Your task to perform on an android device: Open Chrome and go to the settings page Image 0: 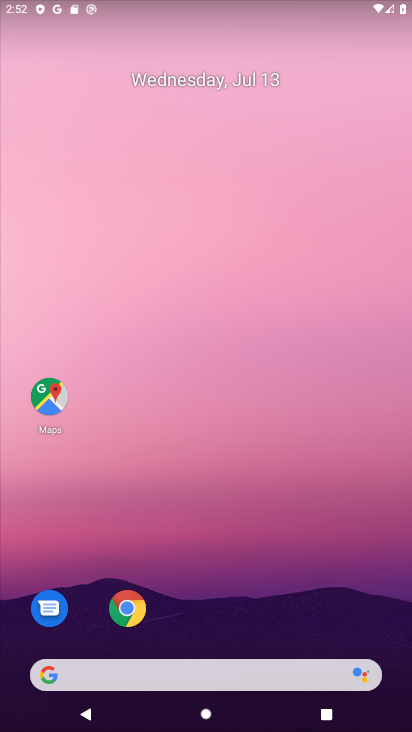
Step 0: click (125, 598)
Your task to perform on an android device: Open Chrome and go to the settings page Image 1: 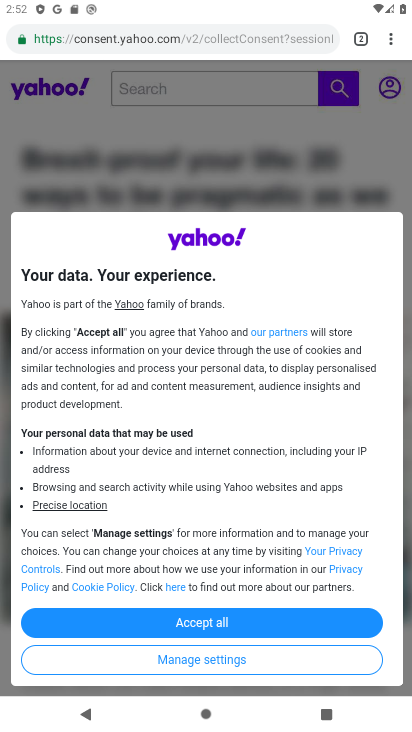
Step 1: click (385, 44)
Your task to perform on an android device: Open Chrome and go to the settings page Image 2: 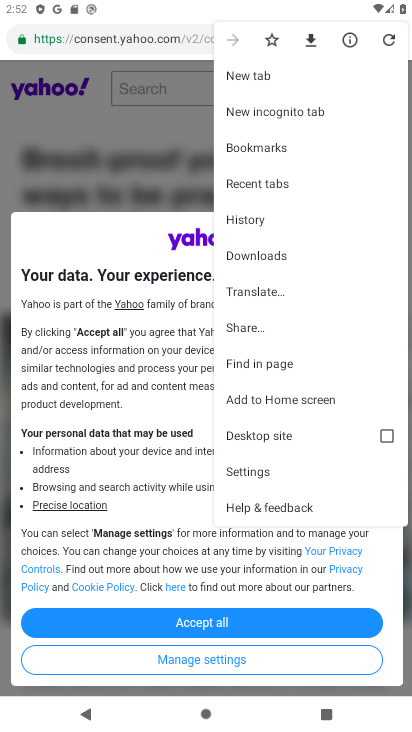
Step 2: click (243, 474)
Your task to perform on an android device: Open Chrome and go to the settings page Image 3: 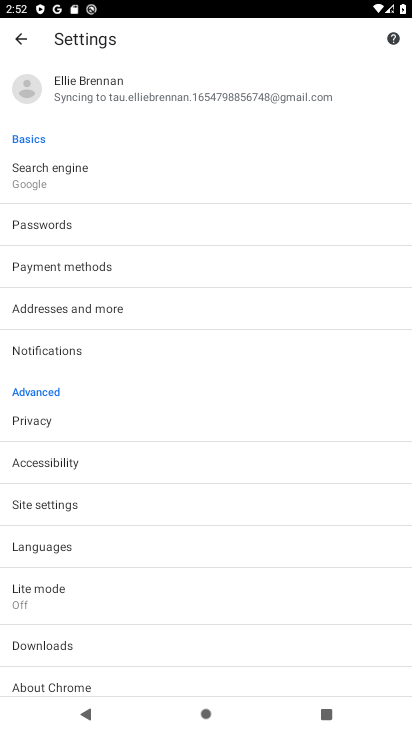
Step 3: task complete